Your task to perform on an android device: Open Google Maps Image 0: 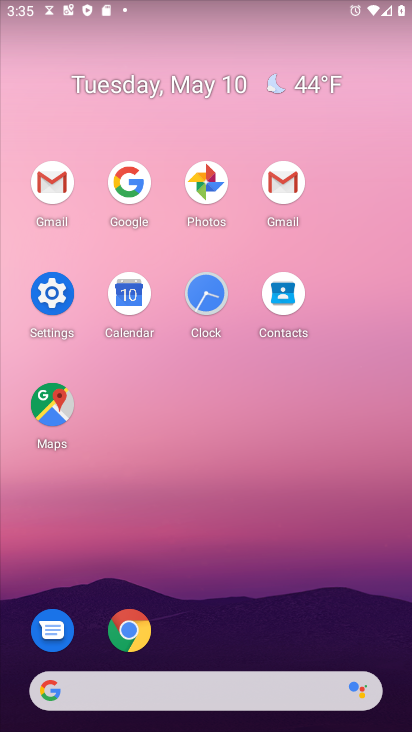
Step 0: click (40, 410)
Your task to perform on an android device: Open Google Maps Image 1: 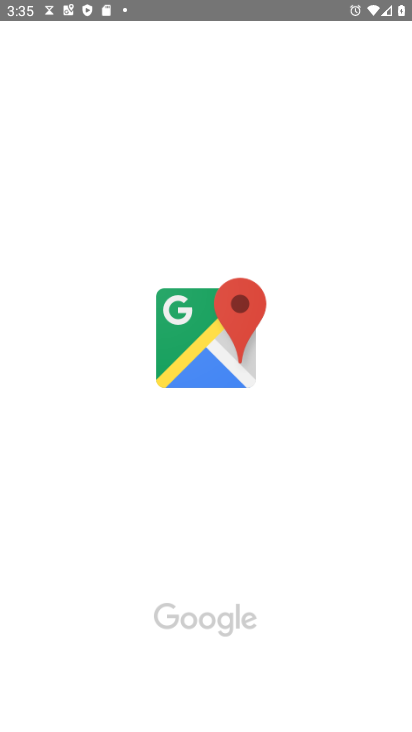
Step 1: task complete